Your task to perform on an android device: Go to Reddit.com Image 0: 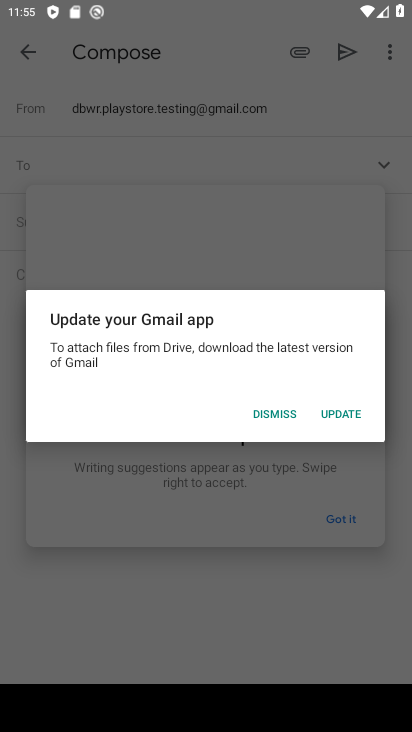
Step 0: press home button
Your task to perform on an android device: Go to Reddit.com Image 1: 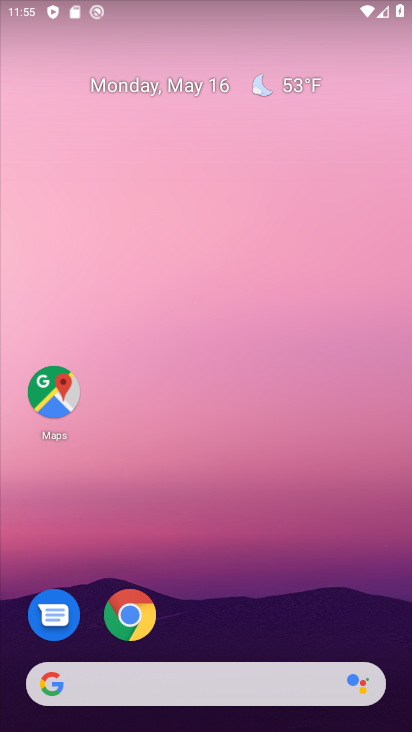
Step 1: click (132, 611)
Your task to perform on an android device: Go to Reddit.com Image 2: 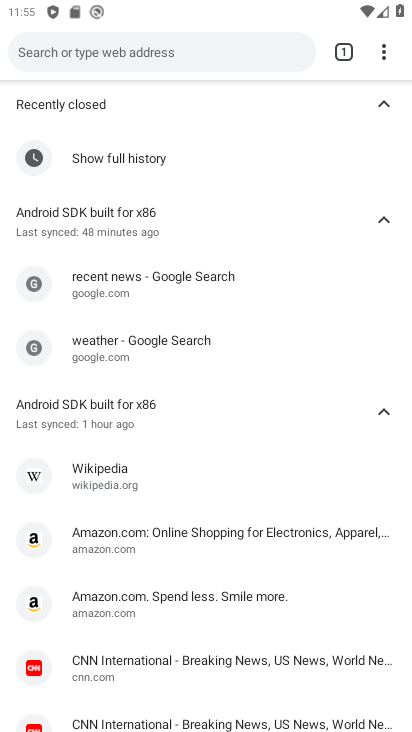
Step 2: click (227, 50)
Your task to perform on an android device: Go to Reddit.com Image 3: 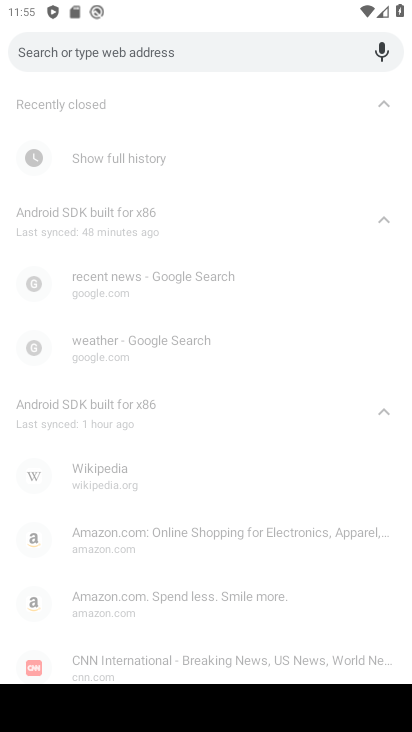
Step 3: type "reddit"
Your task to perform on an android device: Go to Reddit.com Image 4: 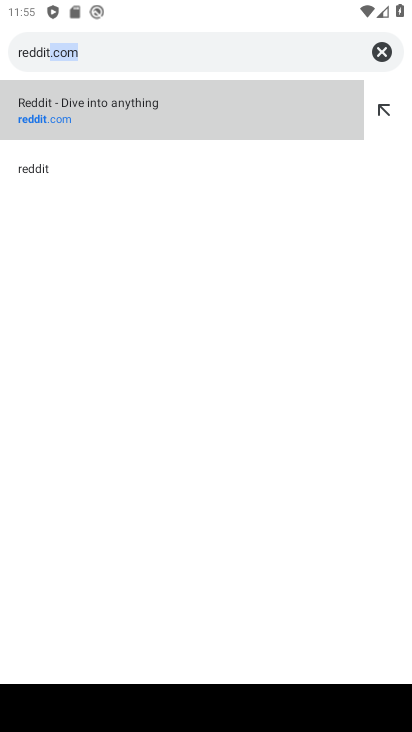
Step 4: click (136, 103)
Your task to perform on an android device: Go to Reddit.com Image 5: 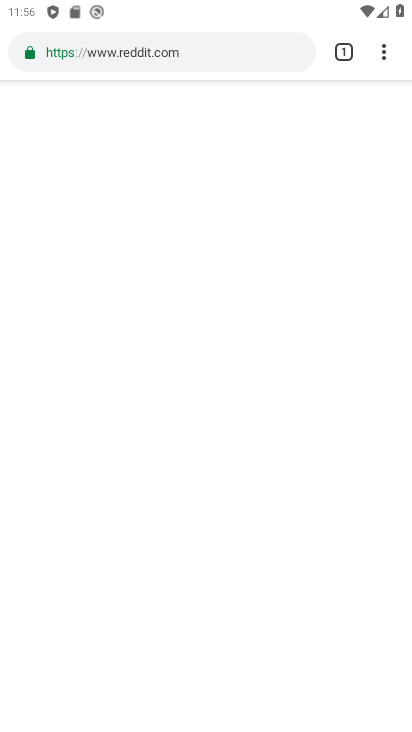
Step 5: task complete